Your task to perform on an android device: Open battery settings Image 0: 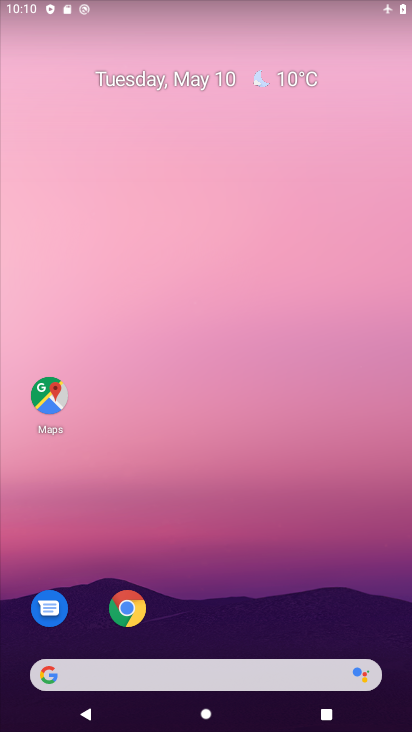
Step 0: drag from (303, 555) to (323, 6)
Your task to perform on an android device: Open battery settings Image 1: 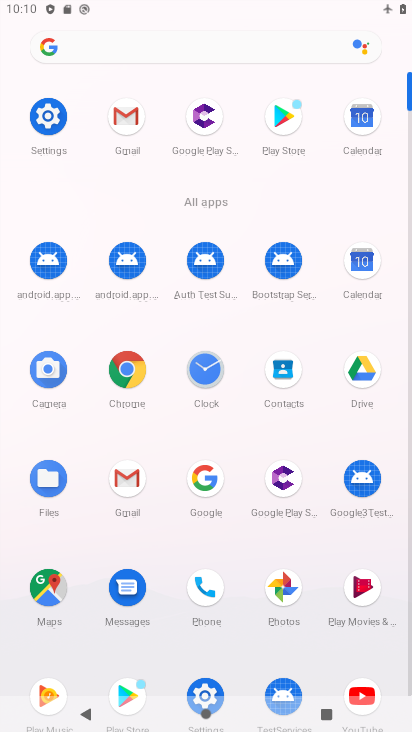
Step 1: click (35, 111)
Your task to perform on an android device: Open battery settings Image 2: 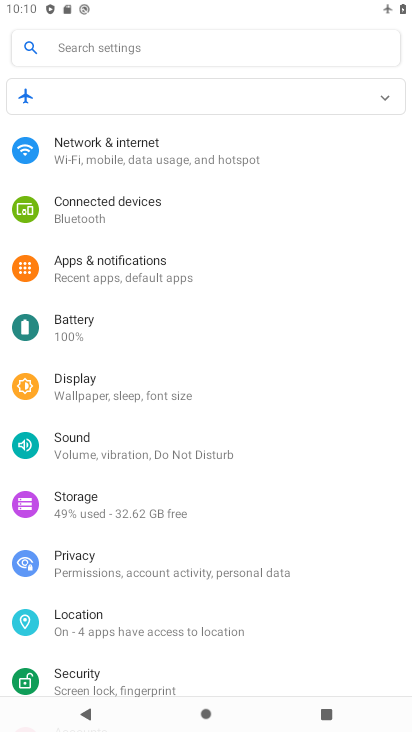
Step 2: click (117, 337)
Your task to perform on an android device: Open battery settings Image 3: 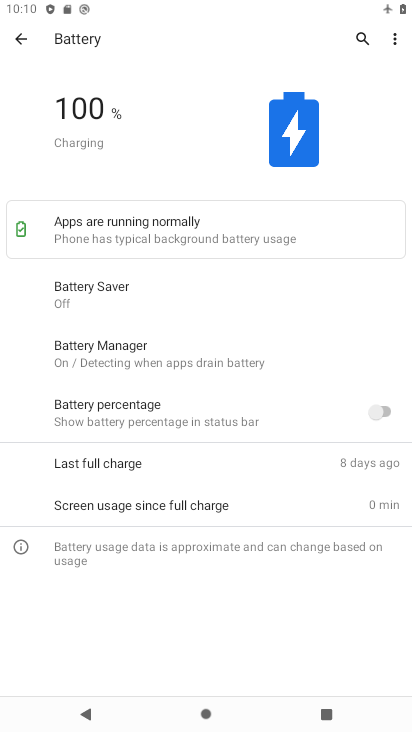
Step 3: task complete